Your task to perform on an android device: Open Chrome and go to settings Image 0: 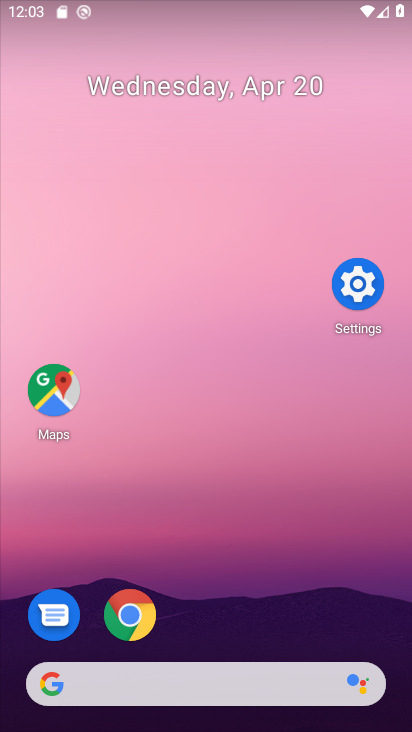
Step 0: drag from (179, 567) to (229, 217)
Your task to perform on an android device: Open Chrome and go to settings Image 1: 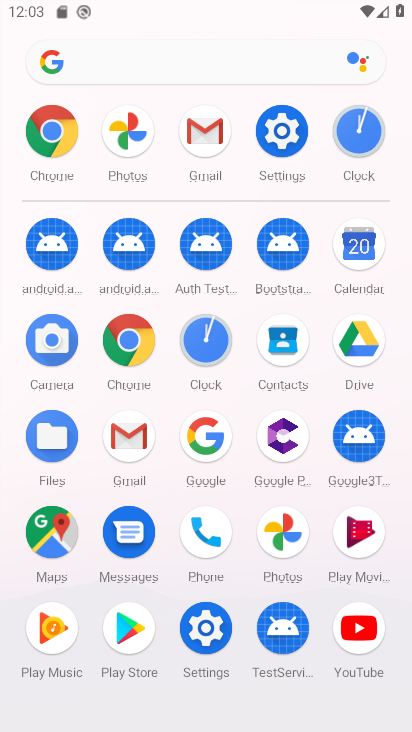
Step 1: click (137, 330)
Your task to perform on an android device: Open Chrome and go to settings Image 2: 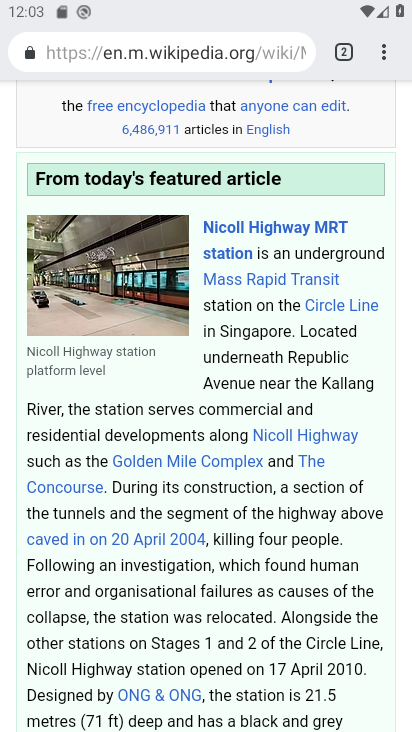
Step 2: drag from (199, 649) to (36, 36)
Your task to perform on an android device: Open Chrome and go to settings Image 3: 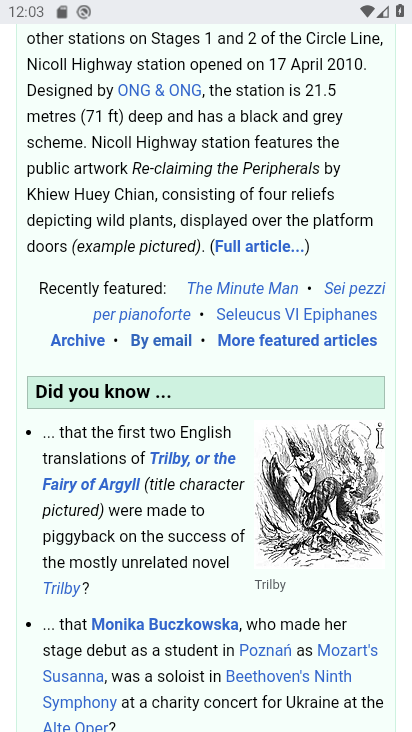
Step 3: drag from (182, 637) to (266, 226)
Your task to perform on an android device: Open Chrome and go to settings Image 4: 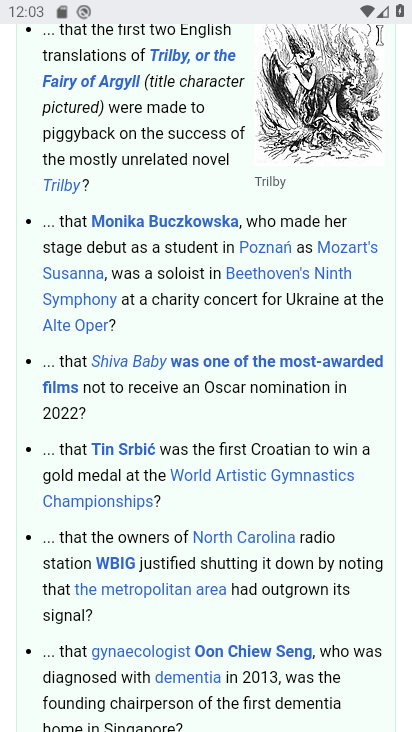
Step 4: drag from (219, 137) to (372, 598)
Your task to perform on an android device: Open Chrome and go to settings Image 5: 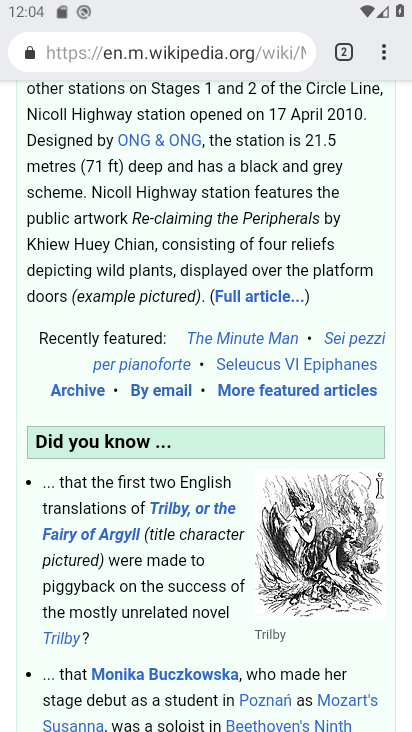
Step 5: click (378, 50)
Your task to perform on an android device: Open Chrome and go to settings Image 6: 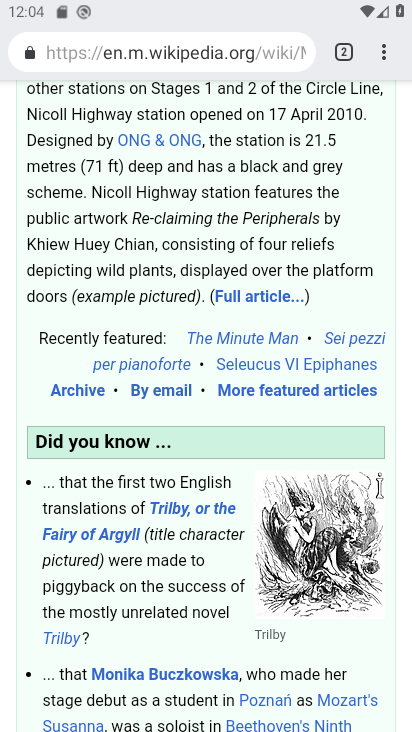
Step 6: click (381, 50)
Your task to perform on an android device: Open Chrome and go to settings Image 7: 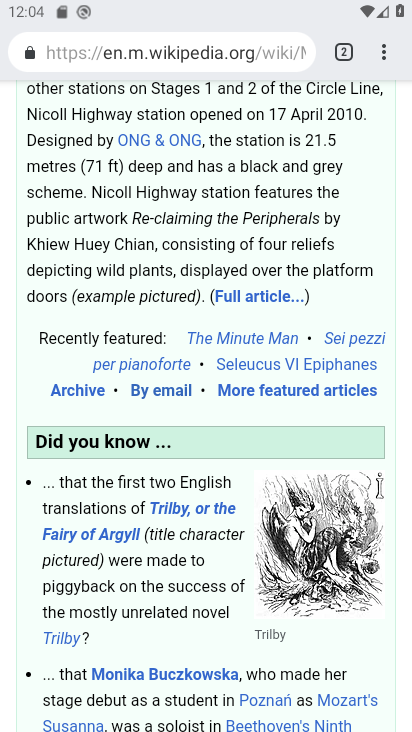
Step 7: task complete